Your task to perform on an android device: toggle improve location accuracy Image 0: 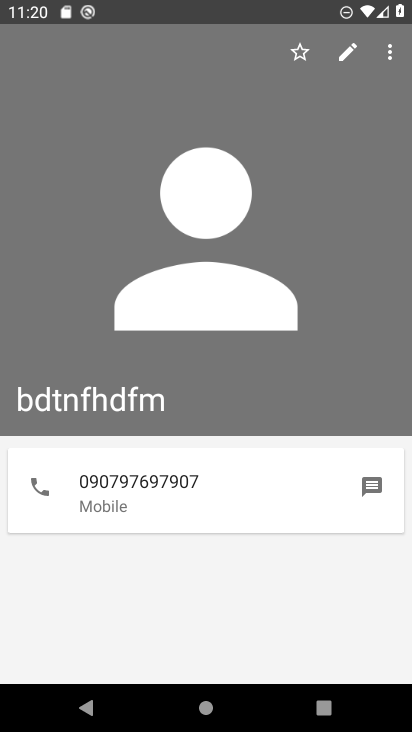
Step 0: press home button
Your task to perform on an android device: toggle improve location accuracy Image 1: 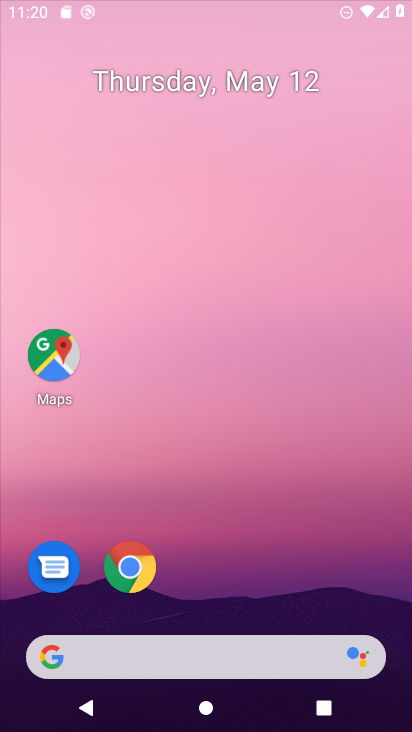
Step 1: drag from (241, 606) to (256, 161)
Your task to perform on an android device: toggle improve location accuracy Image 2: 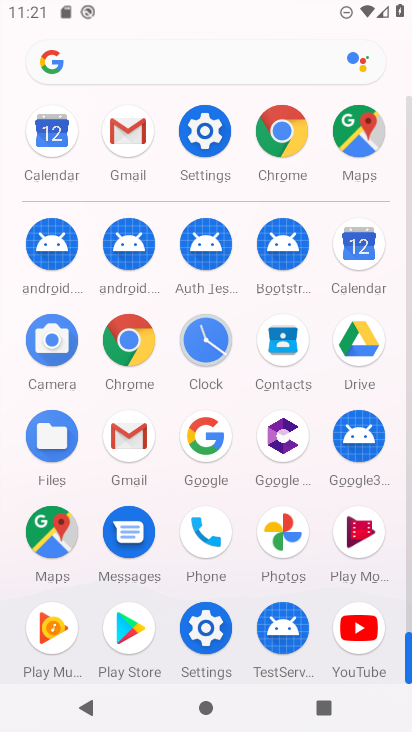
Step 2: click (208, 141)
Your task to perform on an android device: toggle improve location accuracy Image 3: 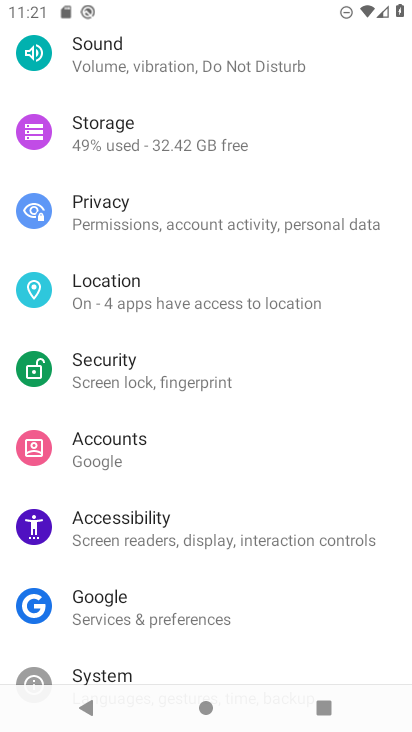
Step 3: click (182, 293)
Your task to perform on an android device: toggle improve location accuracy Image 4: 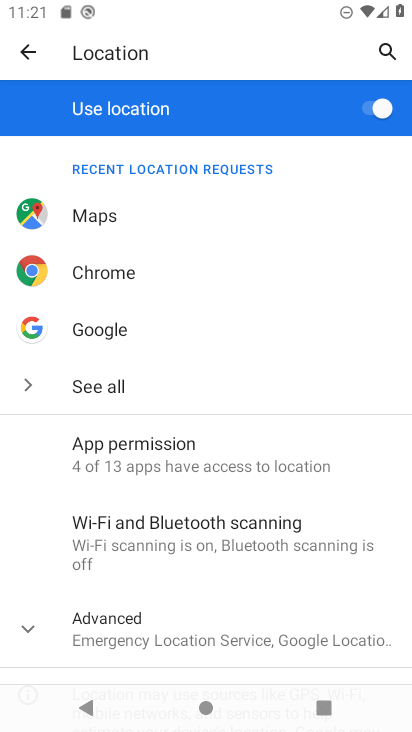
Step 4: drag from (168, 514) to (182, 316)
Your task to perform on an android device: toggle improve location accuracy Image 5: 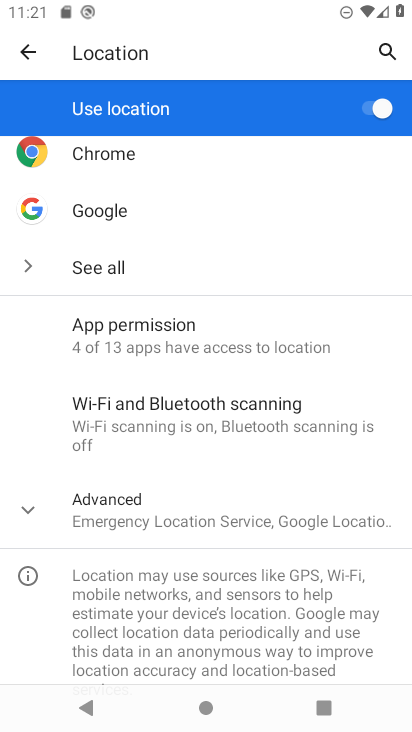
Step 5: click (171, 504)
Your task to perform on an android device: toggle improve location accuracy Image 6: 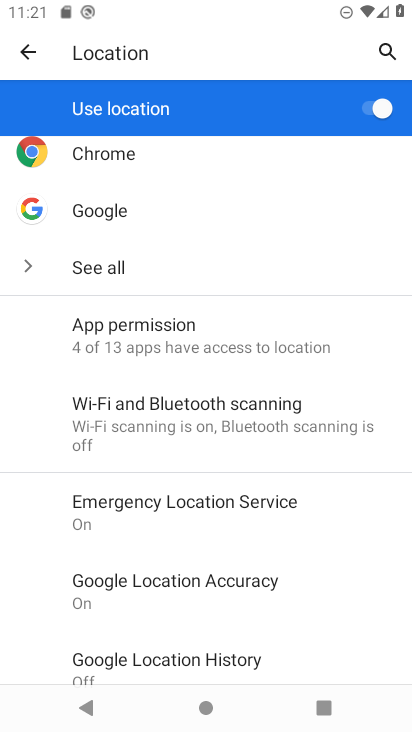
Step 6: drag from (209, 589) to (256, 356)
Your task to perform on an android device: toggle improve location accuracy Image 7: 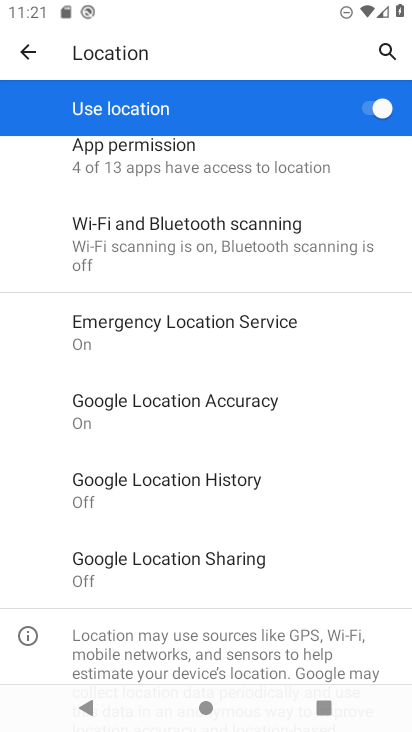
Step 7: click (267, 394)
Your task to perform on an android device: toggle improve location accuracy Image 8: 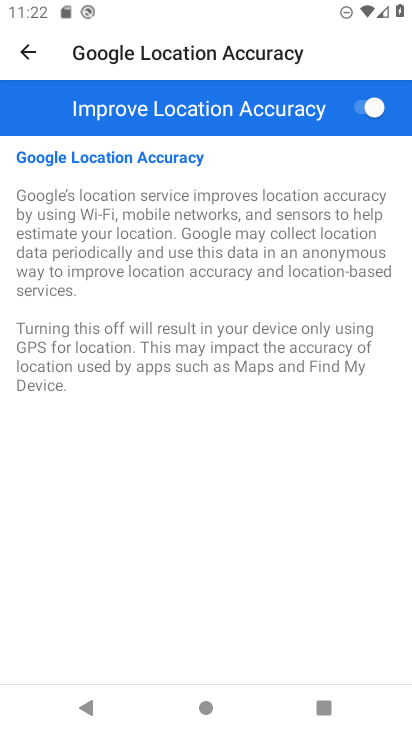
Step 8: click (361, 105)
Your task to perform on an android device: toggle improve location accuracy Image 9: 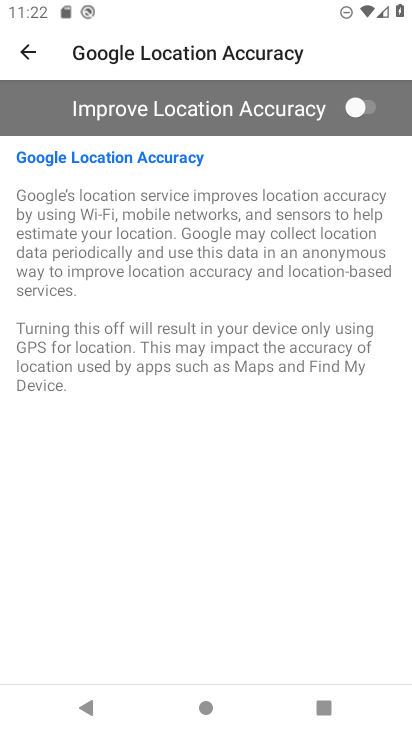
Step 9: task complete